Your task to perform on an android device: Empty the shopping cart on amazon. Search for energizer triple a on amazon, select the first entry, and add it to the cart. Image 0: 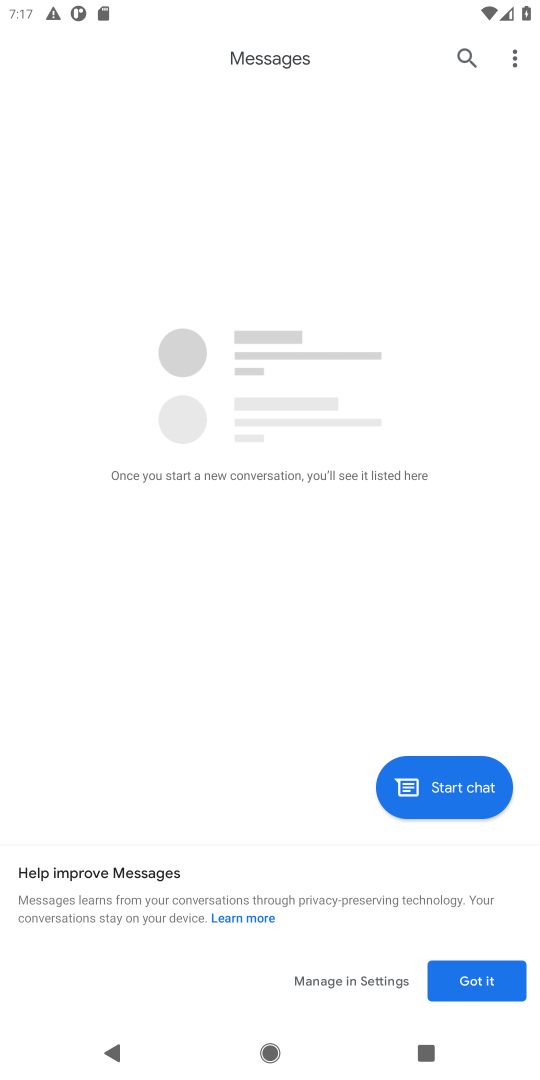
Step 0: press home button
Your task to perform on an android device: Empty the shopping cart on amazon. Search for energizer triple a on amazon, select the first entry, and add it to the cart. Image 1: 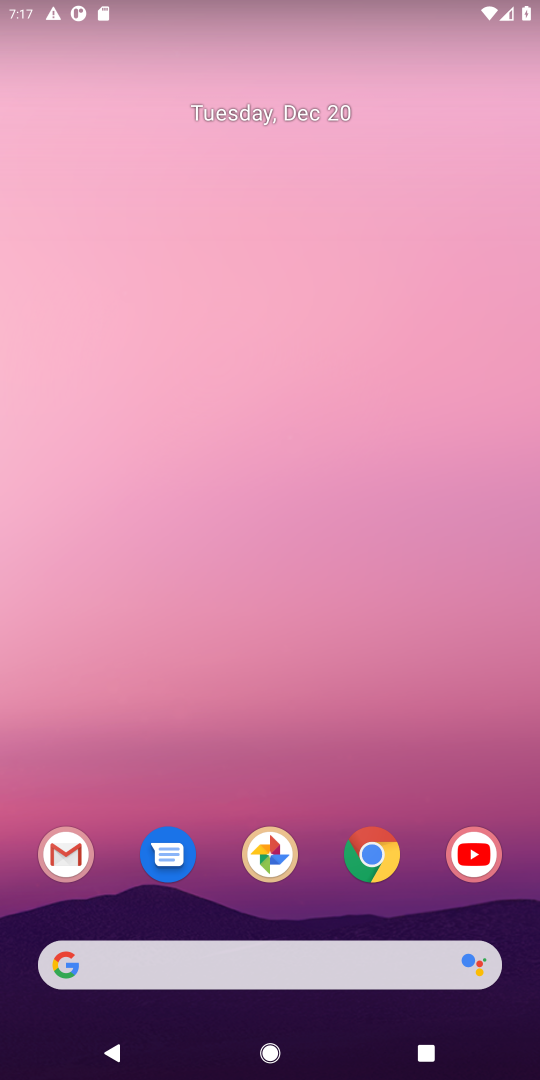
Step 1: click (371, 859)
Your task to perform on an android device: Empty the shopping cart on amazon. Search for energizer triple a on amazon, select the first entry, and add it to the cart. Image 2: 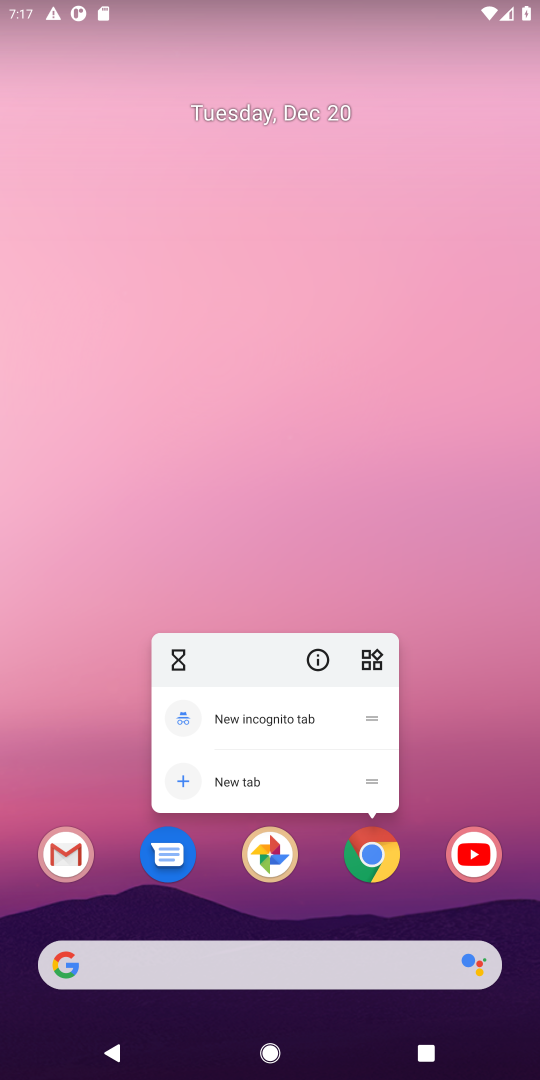
Step 2: click (373, 859)
Your task to perform on an android device: Empty the shopping cart on amazon. Search for energizer triple a on amazon, select the first entry, and add it to the cart. Image 3: 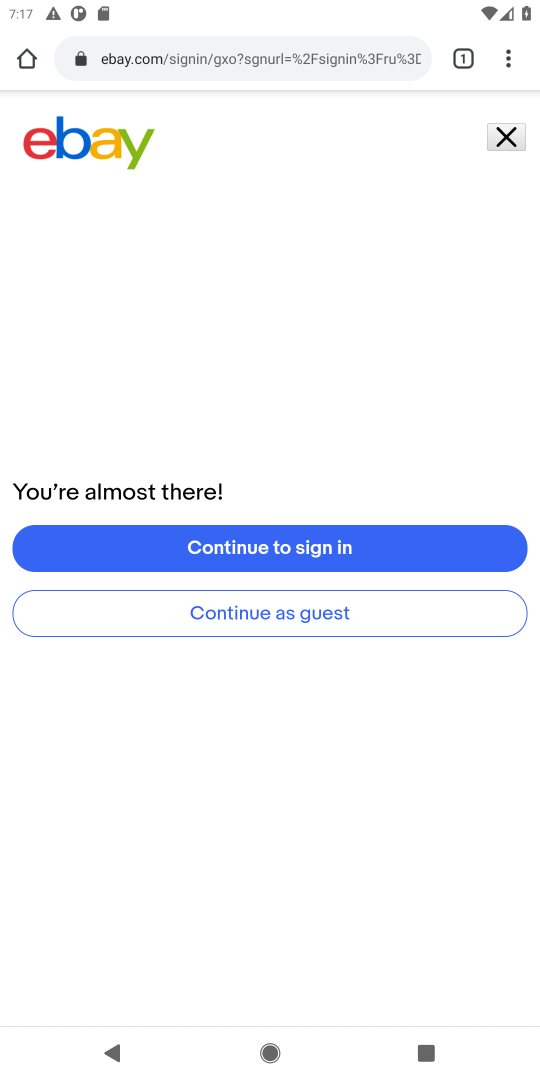
Step 3: click (175, 57)
Your task to perform on an android device: Empty the shopping cart on amazon. Search for energizer triple a on amazon, select the first entry, and add it to the cart. Image 4: 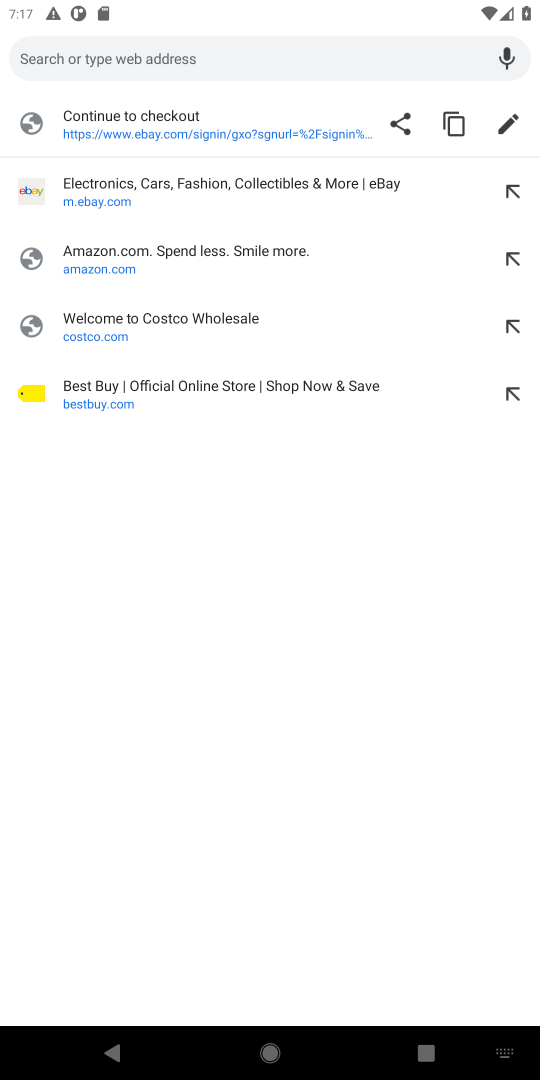
Step 4: click (81, 273)
Your task to perform on an android device: Empty the shopping cart on amazon. Search for energizer triple a on amazon, select the first entry, and add it to the cart. Image 5: 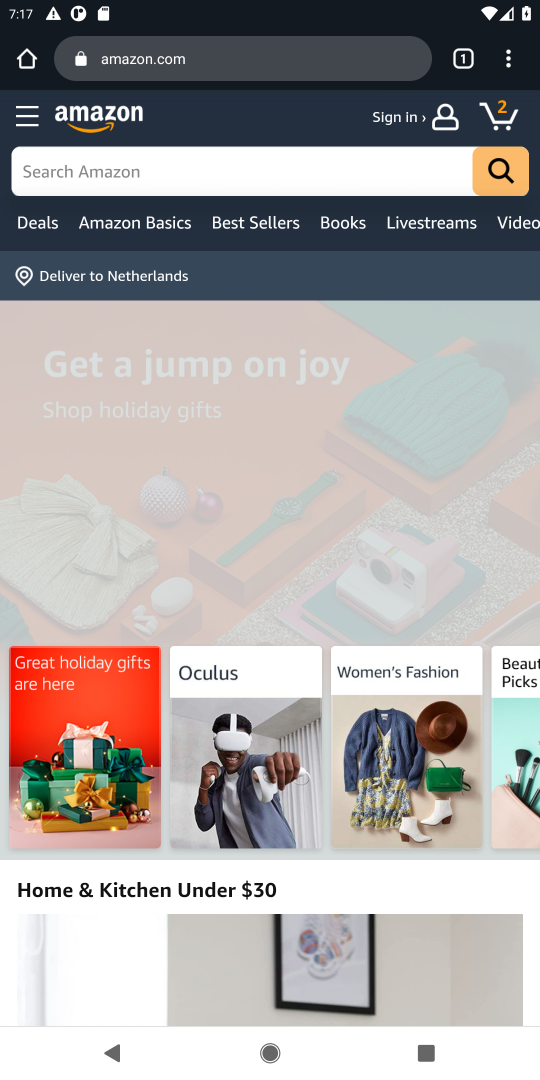
Step 5: click (509, 131)
Your task to perform on an android device: Empty the shopping cart on amazon. Search for energizer triple a on amazon, select the first entry, and add it to the cart. Image 6: 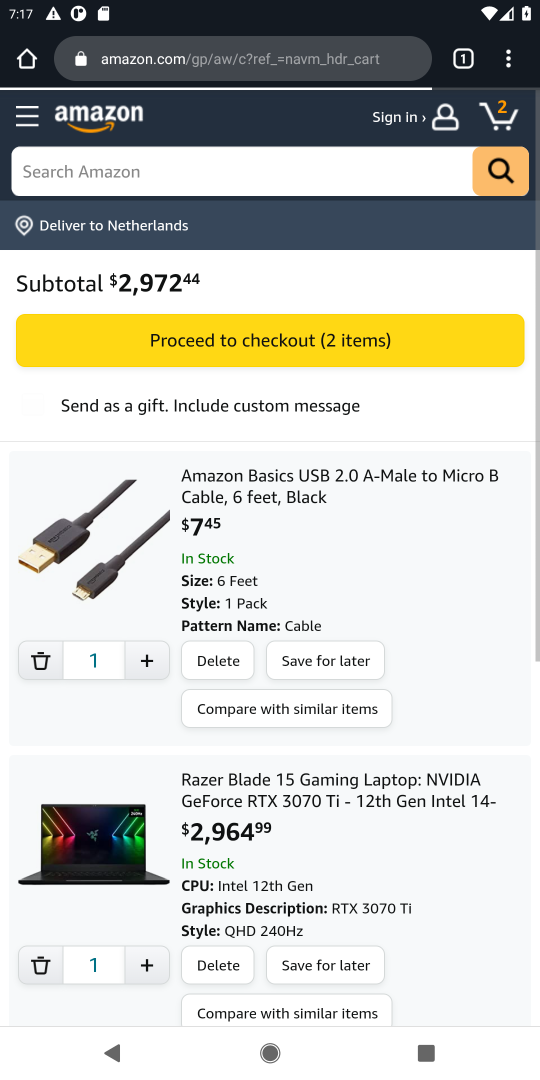
Step 6: click (492, 113)
Your task to perform on an android device: Empty the shopping cart on amazon. Search for energizer triple a on amazon, select the first entry, and add it to the cart. Image 7: 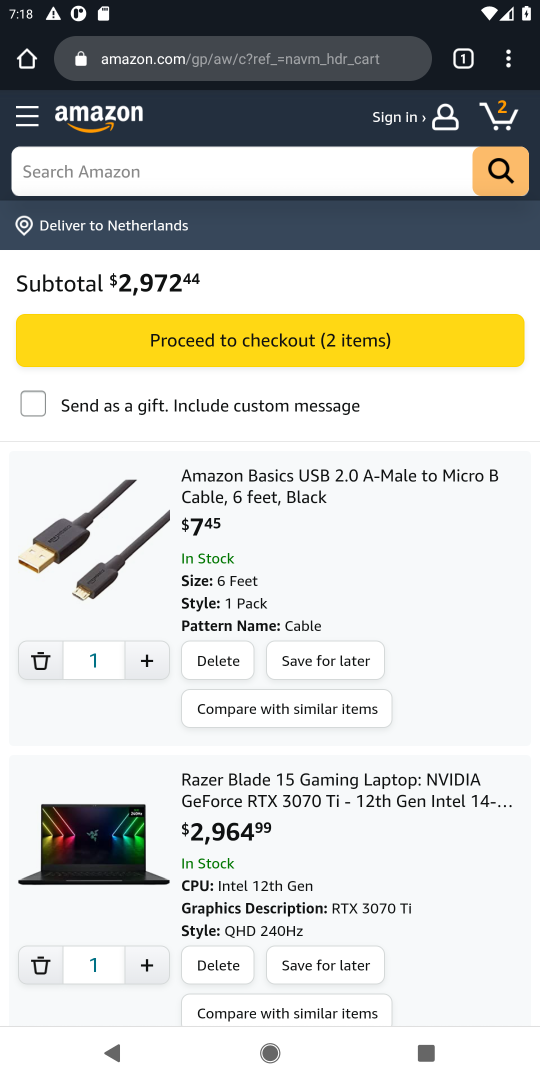
Step 7: click (199, 659)
Your task to perform on an android device: Empty the shopping cart on amazon. Search for energizer triple a on amazon, select the first entry, and add it to the cart. Image 8: 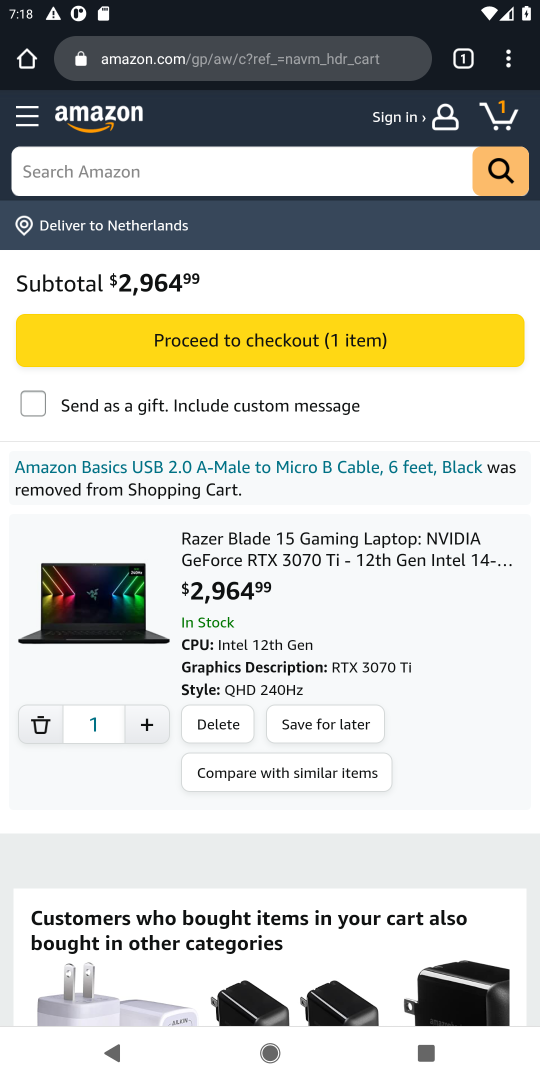
Step 8: click (206, 727)
Your task to perform on an android device: Empty the shopping cart on amazon. Search for energizer triple a on amazon, select the first entry, and add it to the cart. Image 9: 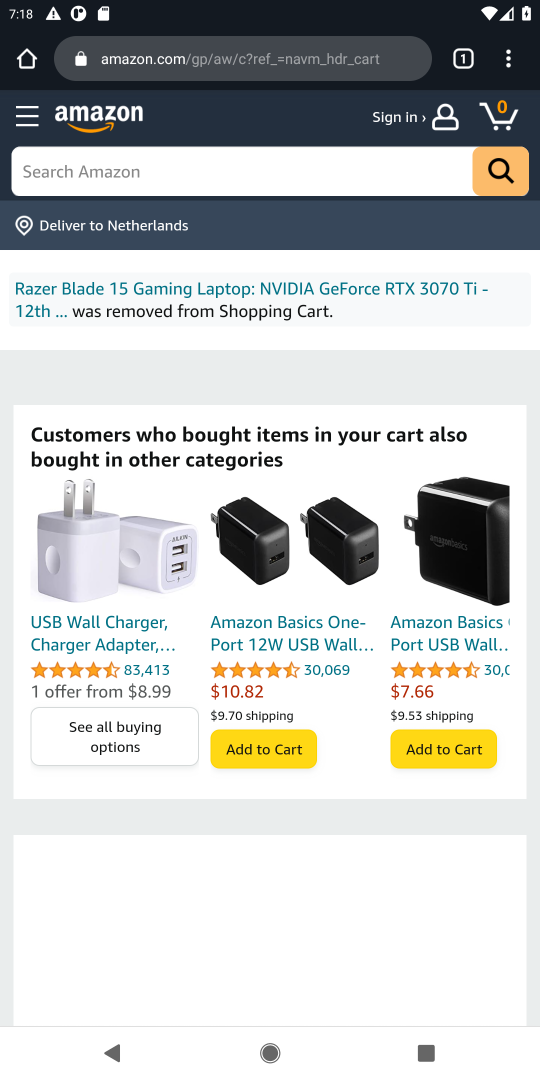
Step 9: click (208, 167)
Your task to perform on an android device: Empty the shopping cart on amazon. Search for energizer triple a on amazon, select the first entry, and add it to the cart. Image 10: 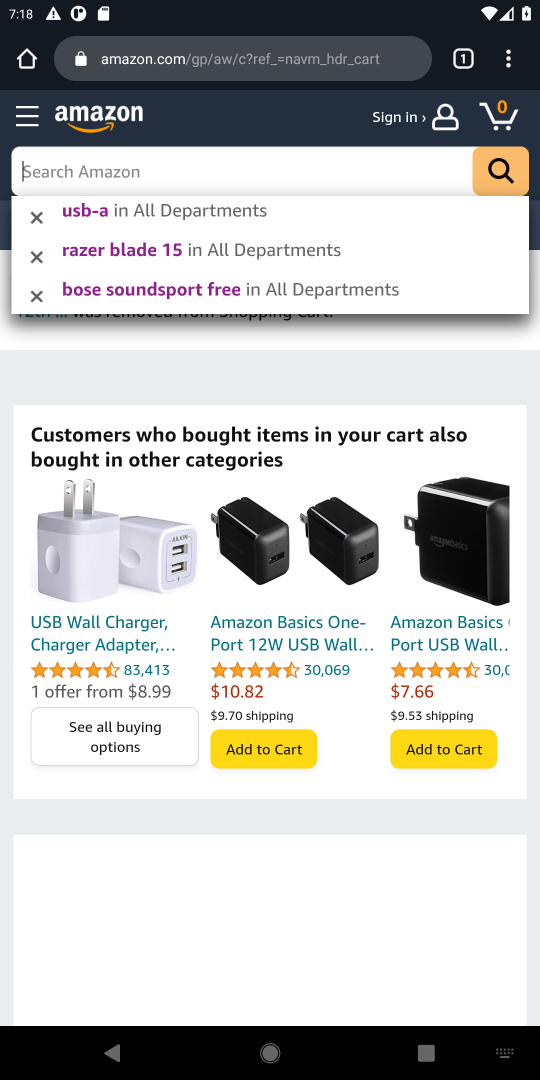
Step 10: type "energizer triple a"
Your task to perform on an android device: Empty the shopping cart on amazon. Search for energizer triple a on amazon, select the first entry, and add it to the cart. Image 11: 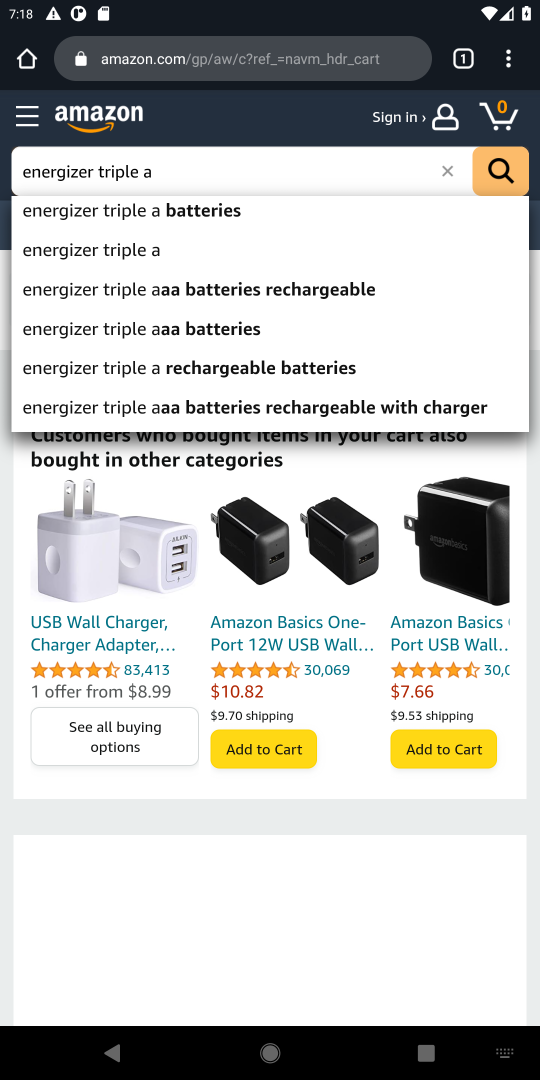
Step 11: click (185, 210)
Your task to perform on an android device: Empty the shopping cart on amazon. Search for energizer triple a on amazon, select the first entry, and add it to the cart. Image 12: 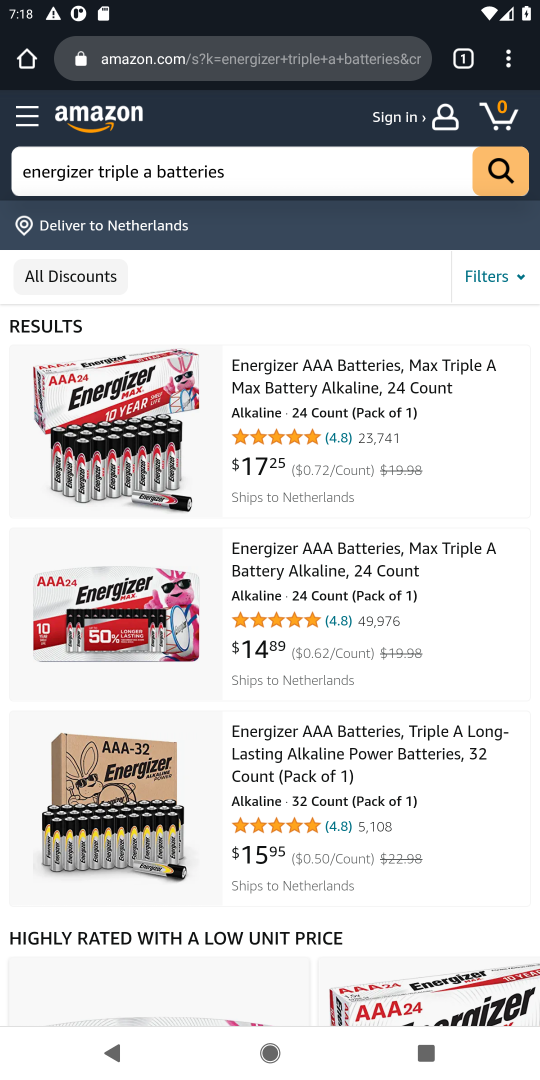
Step 12: click (285, 406)
Your task to perform on an android device: Empty the shopping cart on amazon. Search for energizer triple a on amazon, select the first entry, and add it to the cart. Image 13: 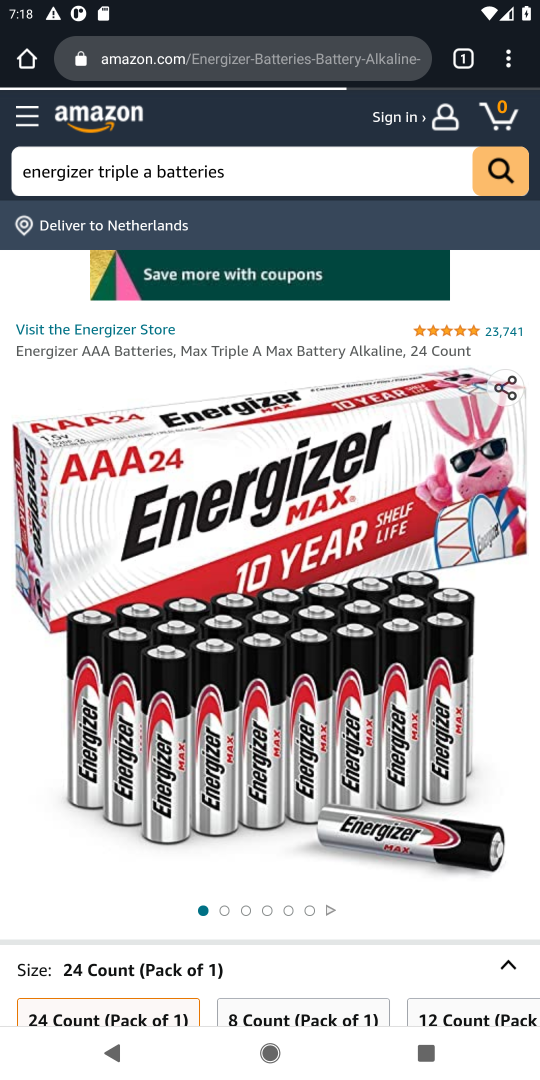
Step 13: drag from (203, 747) to (219, 234)
Your task to perform on an android device: Empty the shopping cart on amazon. Search for energizer triple a on amazon, select the first entry, and add it to the cart. Image 14: 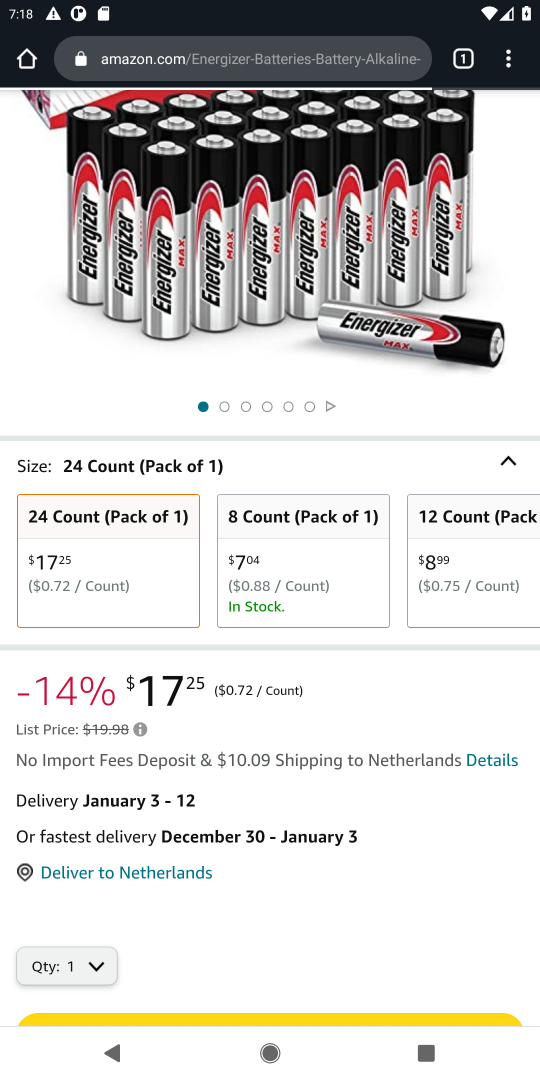
Step 14: drag from (237, 743) to (218, 321)
Your task to perform on an android device: Empty the shopping cart on amazon. Search for energizer triple a on amazon, select the first entry, and add it to the cart. Image 15: 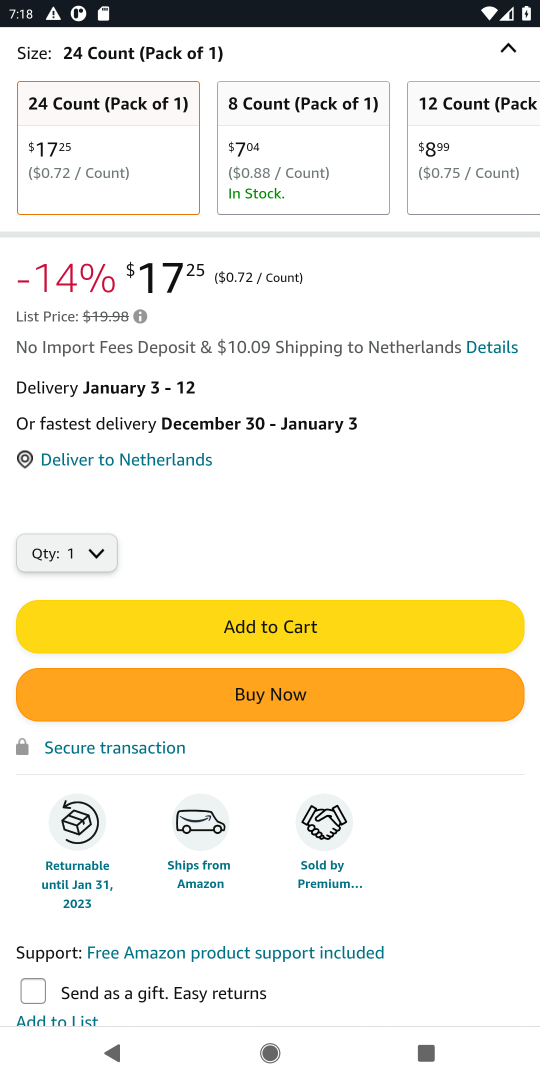
Step 15: click (203, 627)
Your task to perform on an android device: Empty the shopping cart on amazon. Search for energizer triple a on amazon, select the first entry, and add it to the cart. Image 16: 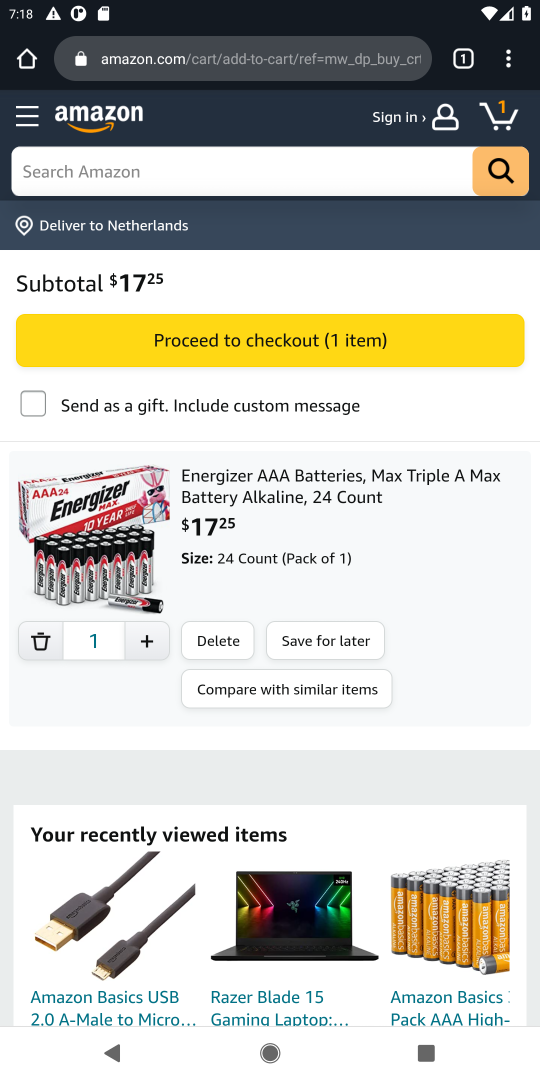
Step 16: task complete